Your task to perform on an android device: What's on my calendar today? Image 0: 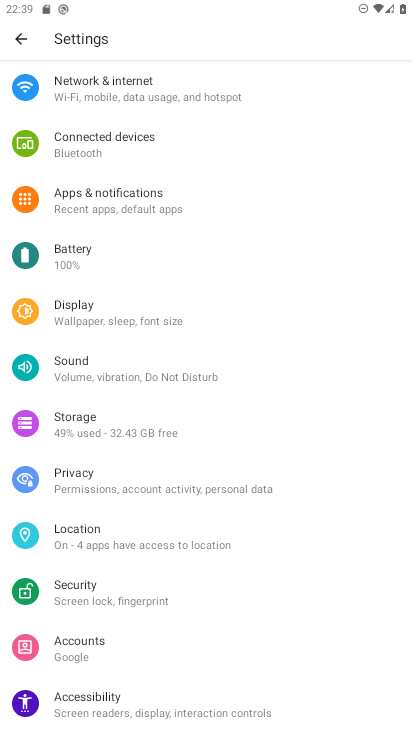
Step 0: press home button
Your task to perform on an android device: What's on my calendar today? Image 1: 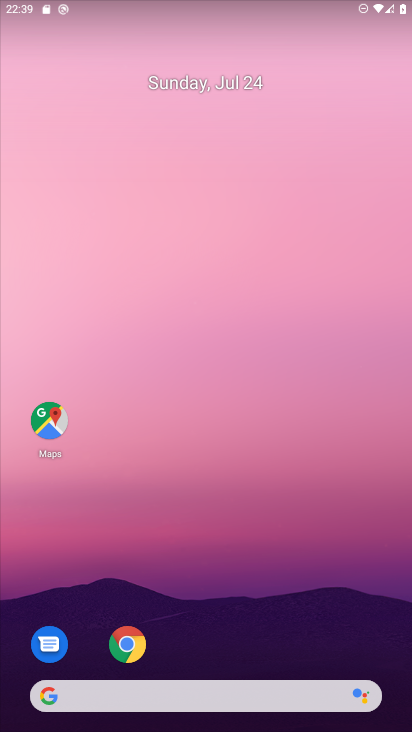
Step 1: drag from (361, 655) to (340, 79)
Your task to perform on an android device: What's on my calendar today? Image 2: 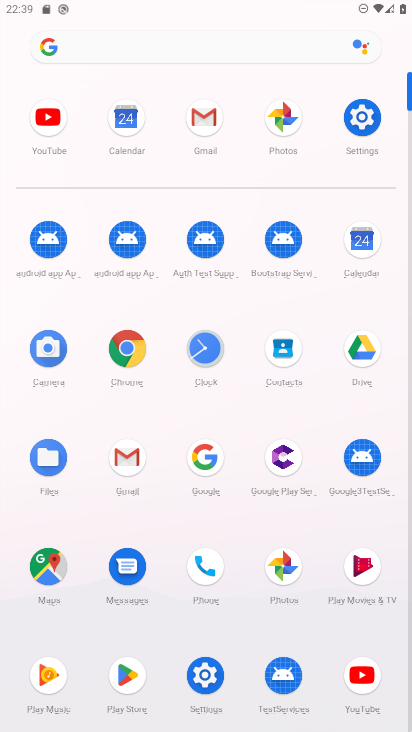
Step 2: click (365, 239)
Your task to perform on an android device: What's on my calendar today? Image 3: 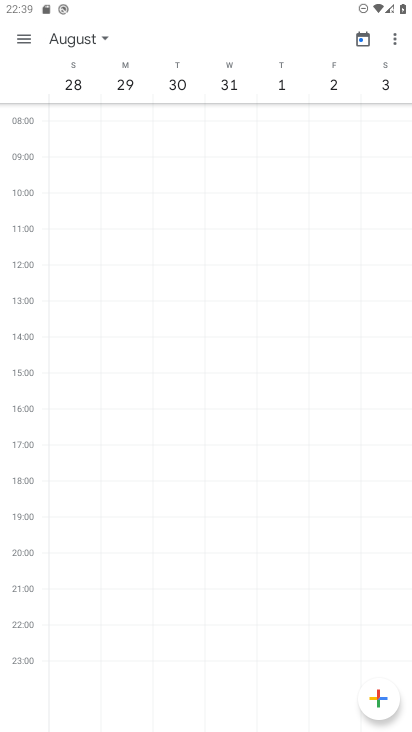
Step 3: click (27, 37)
Your task to perform on an android device: What's on my calendar today? Image 4: 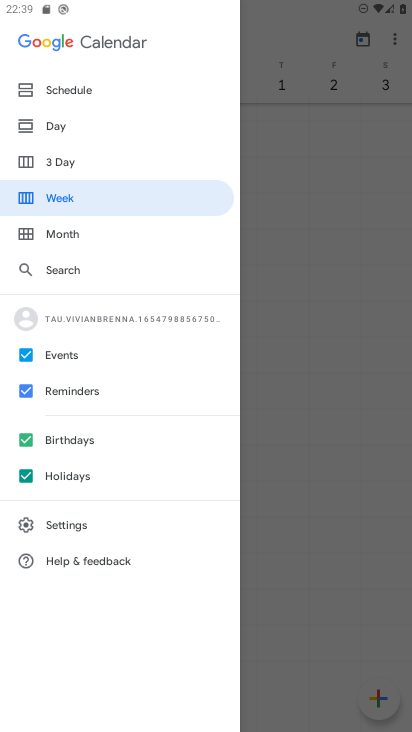
Step 4: click (54, 120)
Your task to perform on an android device: What's on my calendar today? Image 5: 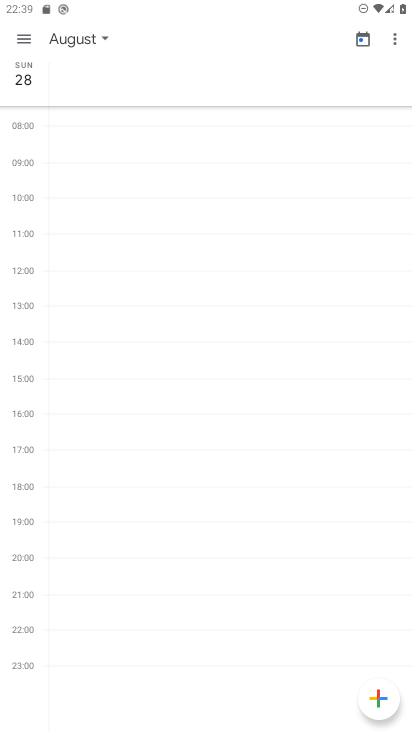
Step 5: click (105, 42)
Your task to perform on an android device: What's on my calendar today? Image 6: 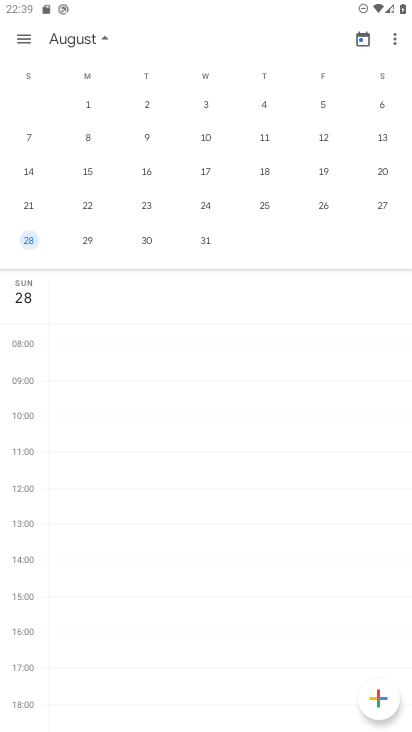
Step 6: drag from (24, 174) to (373, 142)
Your task to perform on an android device: What's on my calendar today? Image 7: 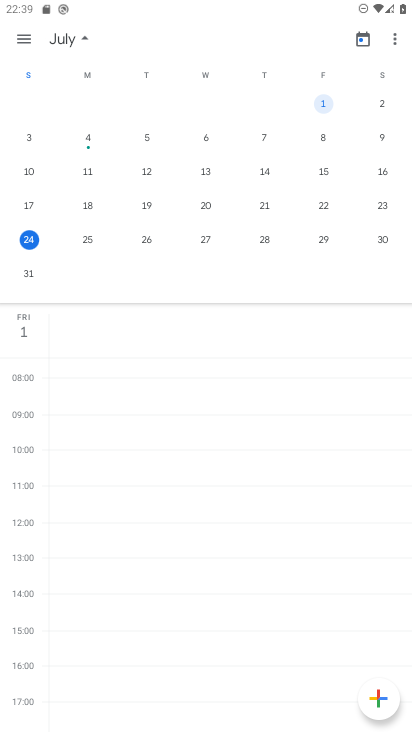
Step 7: click (29, 241)
Your task to perform on an android device: What's on my calendar today? Image 8: 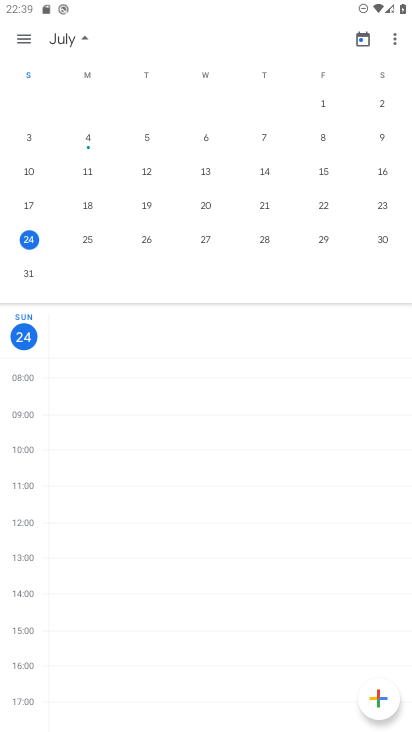
Step 8: task complete